Your task to perform on an android device: check google app version Image 0: 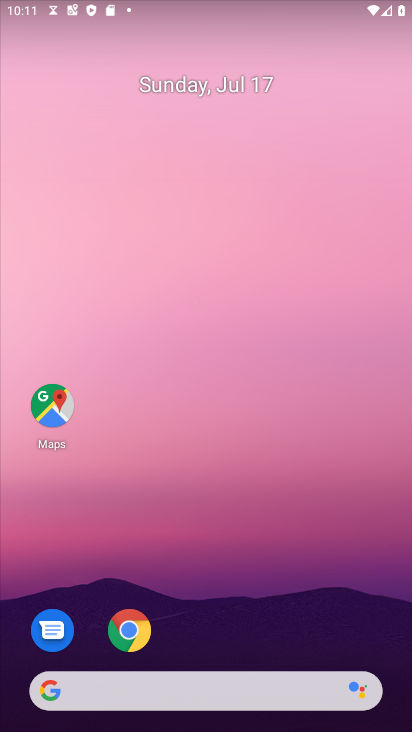
Step 0: drag from (280, 673) to (197, 47)
Your task to perform on an android device: check google app version Image 1: 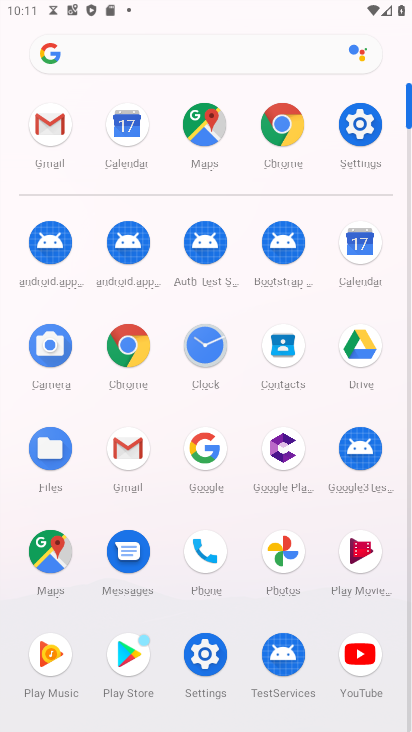
Step 1: click (143, 344)
Your task to perform on an android device: check google app version Image 2: 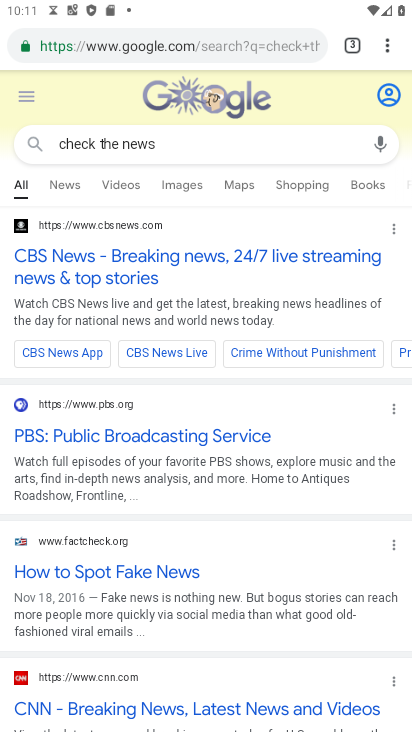
Step 2: click (387, 40)
Your task to perform on an android device: check google app version Image 3: 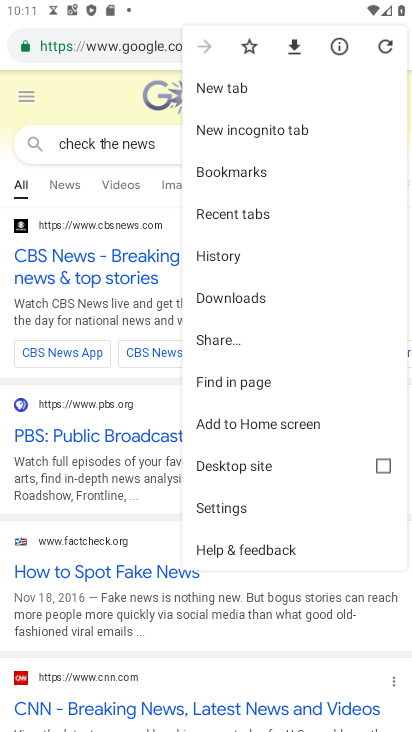
Step 3: click (261, 544)
Your task to perform on an android device: check google app version Image 4: 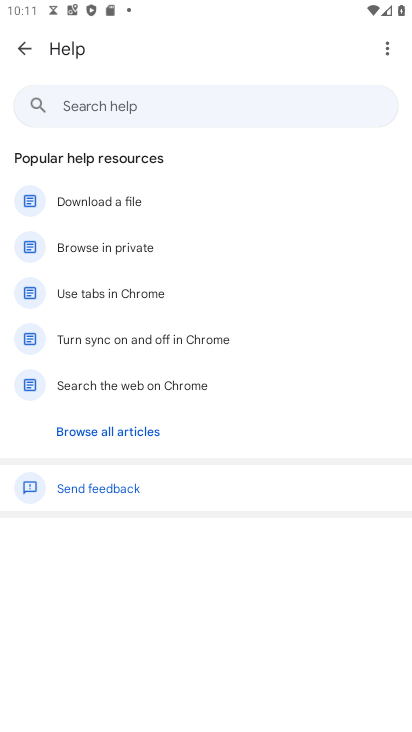
Step 4: click (384, 48)
Your task to perform on an android device: check google app version Image 5: 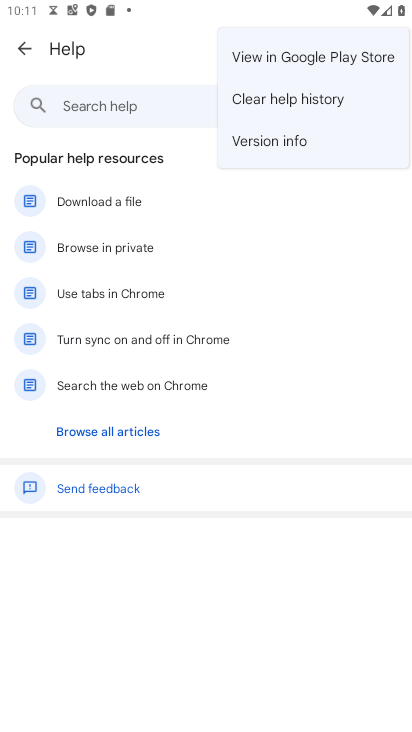
Step 5: click (266, 145)
Your task to perform on an android device: check google app version Image 6: 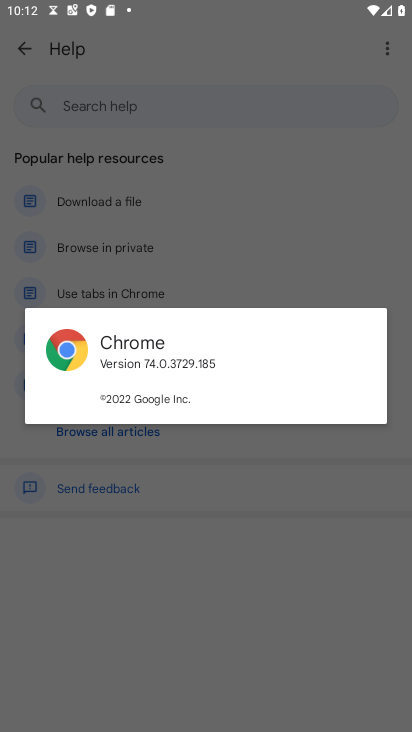
Step 6: task complete